Your task to perform on an android device: Open display settings Image 0: 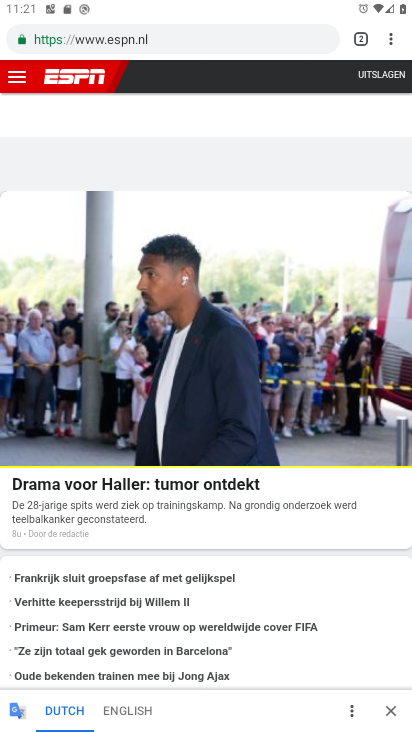
Step 0: press home button
Your task to perform on an android device: Open display settings Image 1: 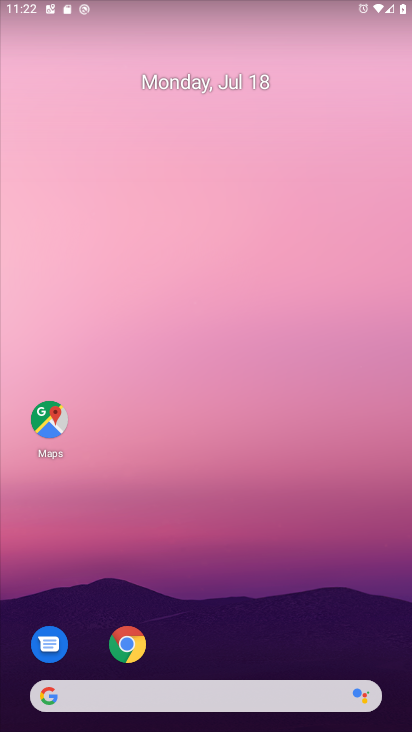
Step 1: drag from (231, 666) to (185, 94)
Your task to perform on an android device: Open display settings Image 2: 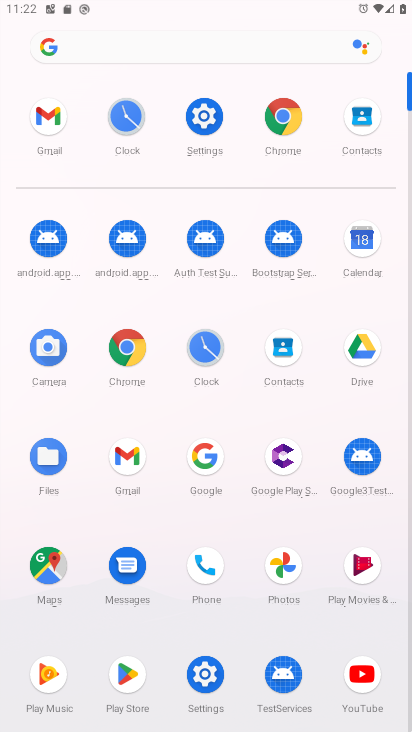
Step 2: click (207, 115)
Your task to perform on an android device: Open display settings Image 3: 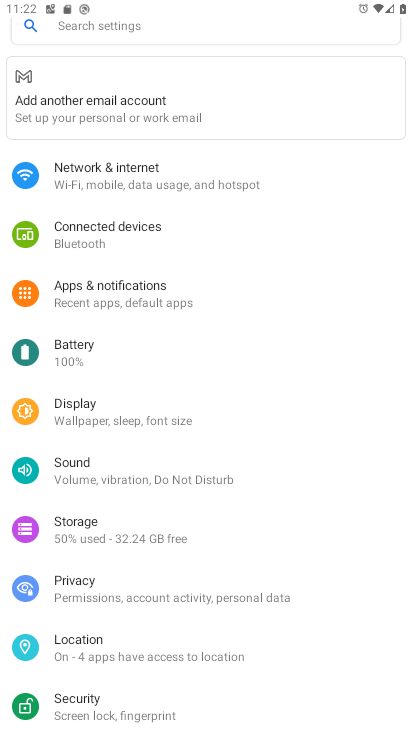
Step 3: click (137, 401)
Your task to perform on an android device: Open display settings Image 4: 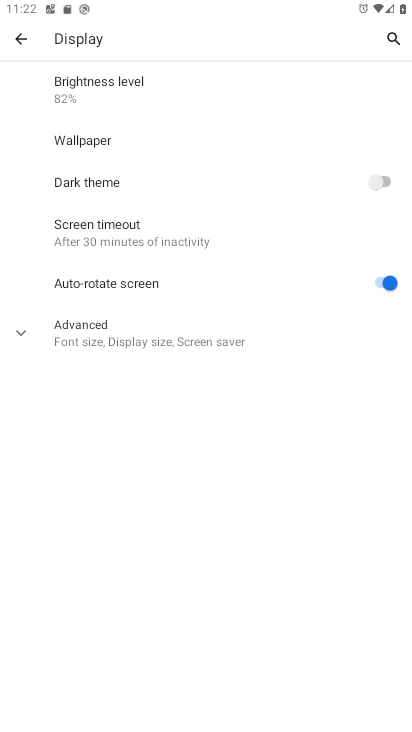
Step 4: task complete